Your task to perform on an android device: all mails in gmail Image 0: 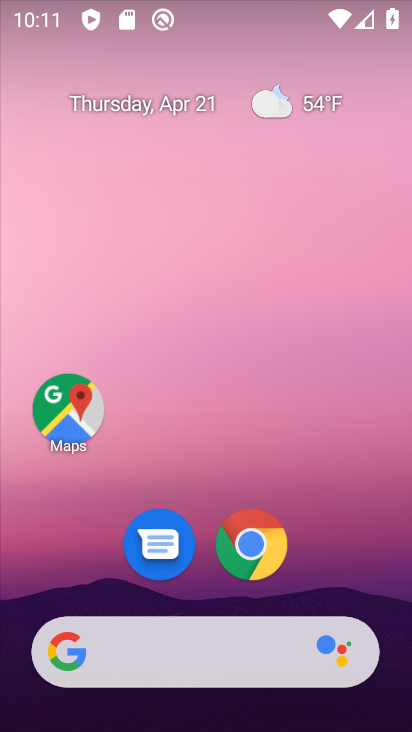
Step 0: drag from (24, 646) to (277, 261)
Your task to perform on an android device: all mails in gmail Image 1: 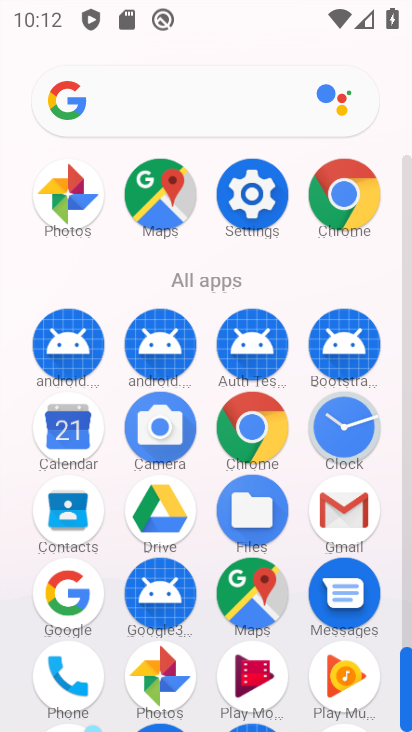
Step 1: click (340, 492)
Your task to perform on an android device: all mails in gmail Image 2: 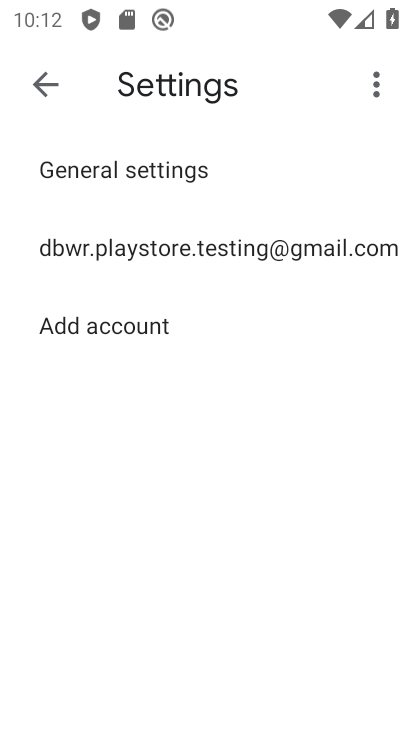
Step 2: press back button
Your task to perform on an android device: all mails in gmail Image 3: 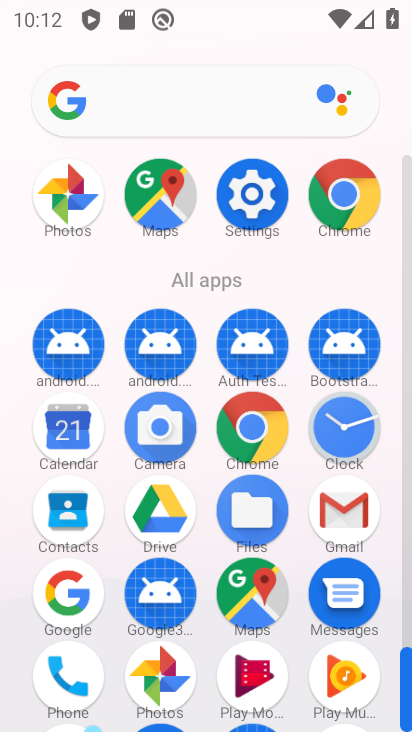
Step 3: click (321, 490)
Your task to perform on an android device: all mails in gmail Image 4: 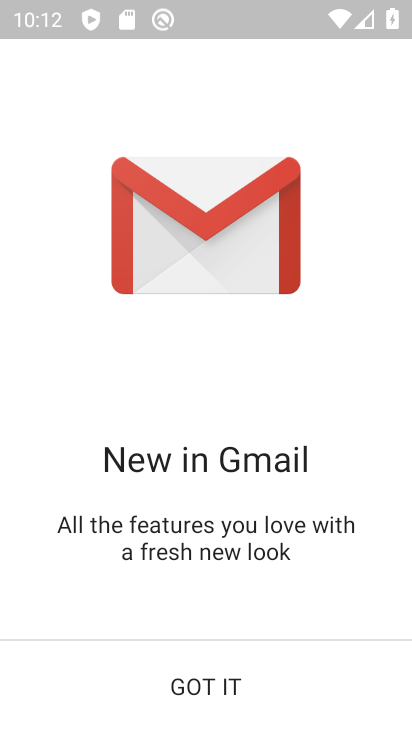
Step 4: click (225, 690)
Your task to perform on an android device: all mails in gmail Image 5: 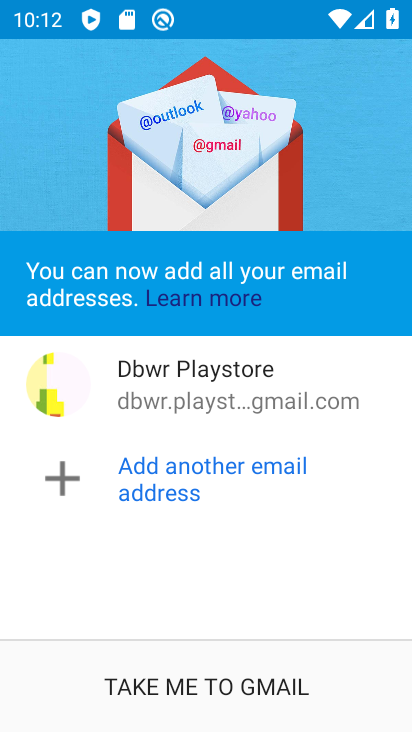
Step 5: click (117, 675)
Your task to perform on an android device: all mails in gmail Image 6: 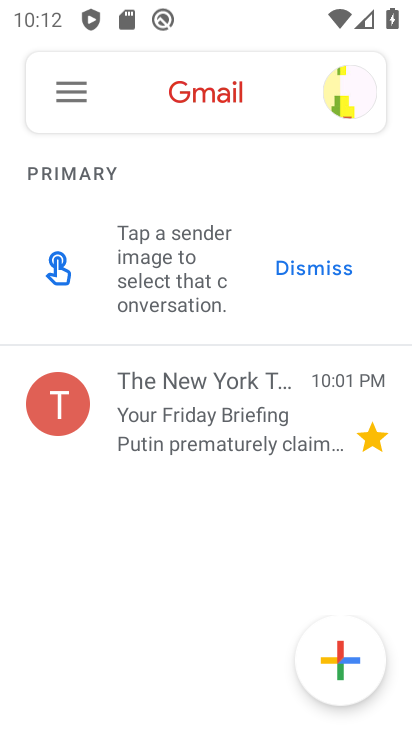
Step 6: click (70, 93)
Your task to perform on an android device: all mails in gmail Image 7: 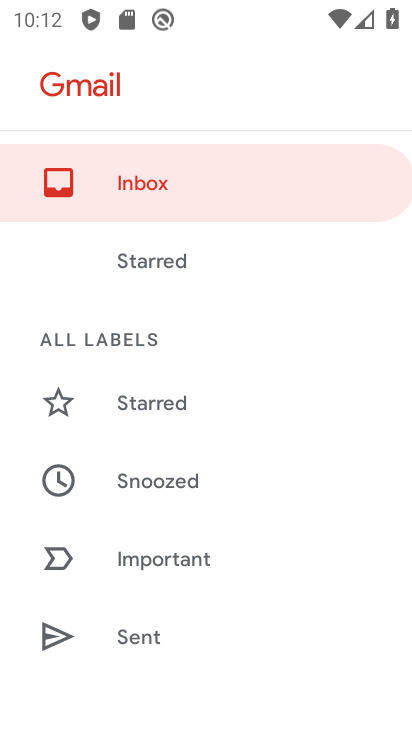
Step 7: drag from (105, 656) to (326, 272)
Your task to perform on an android device: all mails in gmail Image 8: 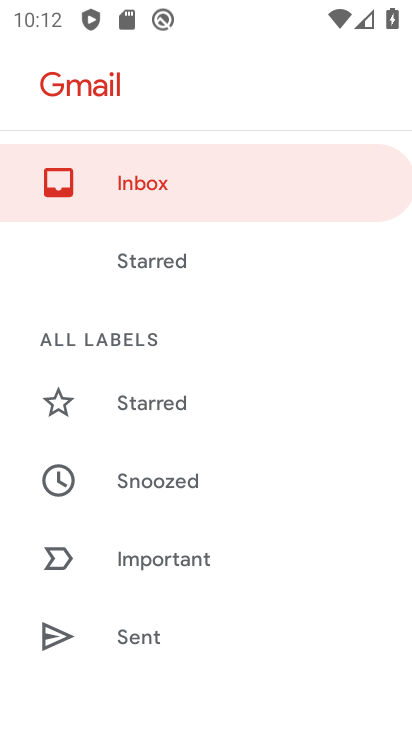
Step 8: drag from (71, 677) to (307, 317)
Your task to perform on an android device: all mails in gmail Image 9: 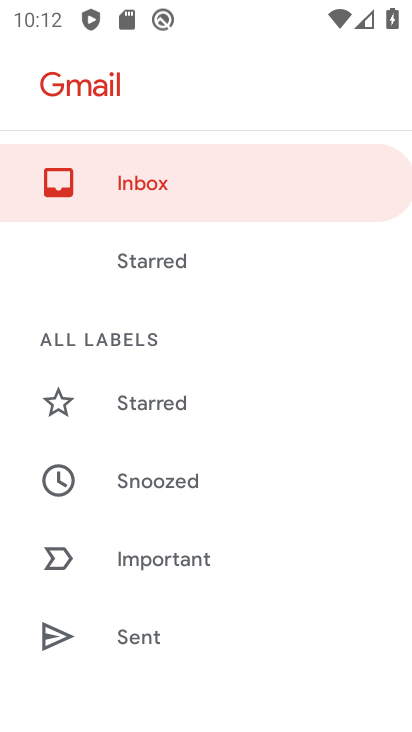
Step 9: drag from (80, 543) to (327, 236)
Your task to perform on an android device: all mails in gmail Image 10: 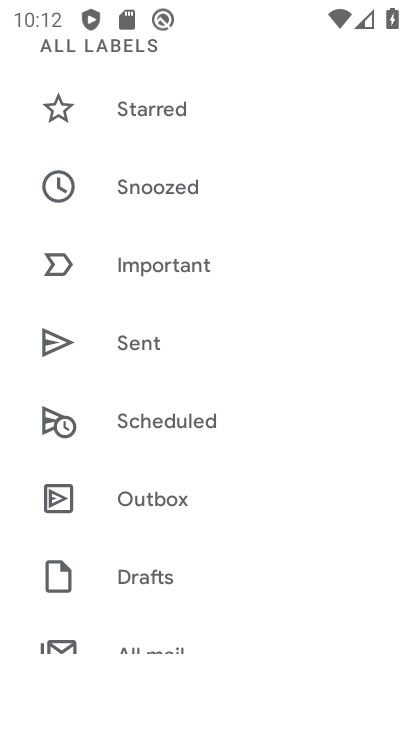
Step 10: drag from (54, 626) to (375, 230)
Your task to perform on an android device: all mails in gmail Image 11: 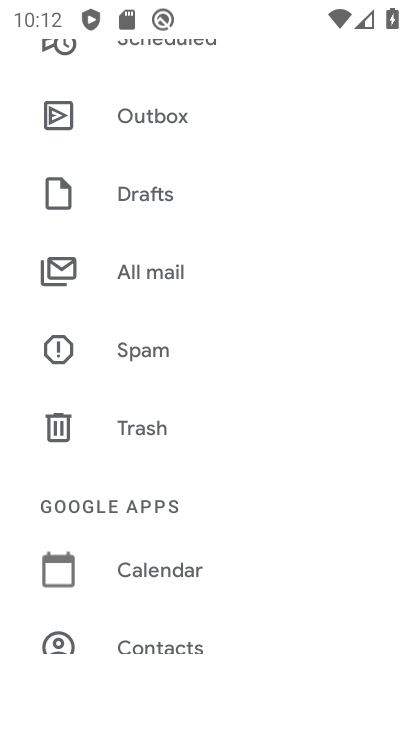
Step 11: click (141, 276)
Your task to perform on an android device: all mails in gmail Image 12: 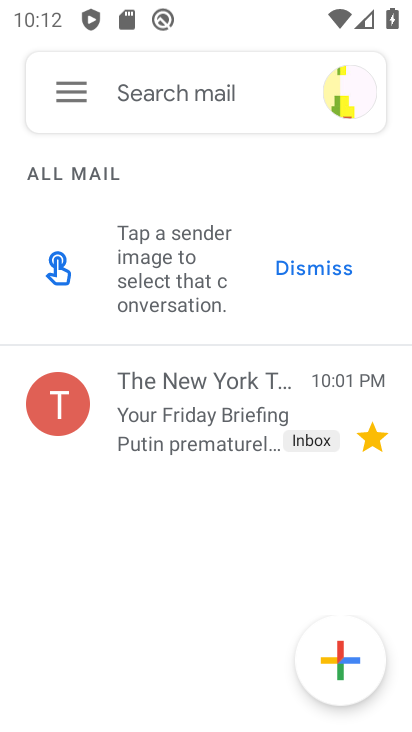
Step 12: task complete